Your task to perform on an android device: open chrome privacy settings Image 0: 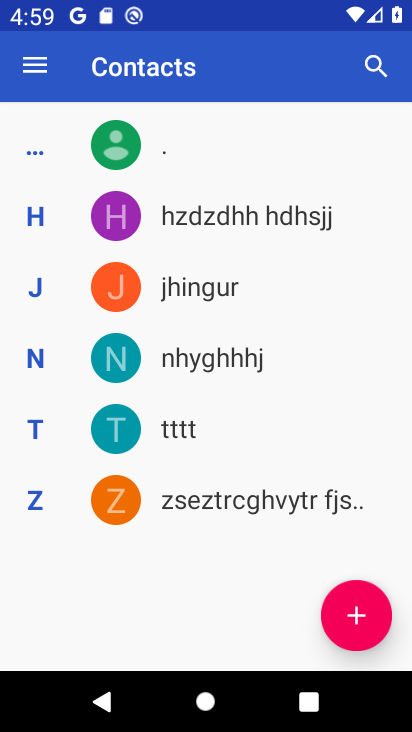
Step 0: press home button
Your task to perform on an android device: open chrome privacy settings Image 1: 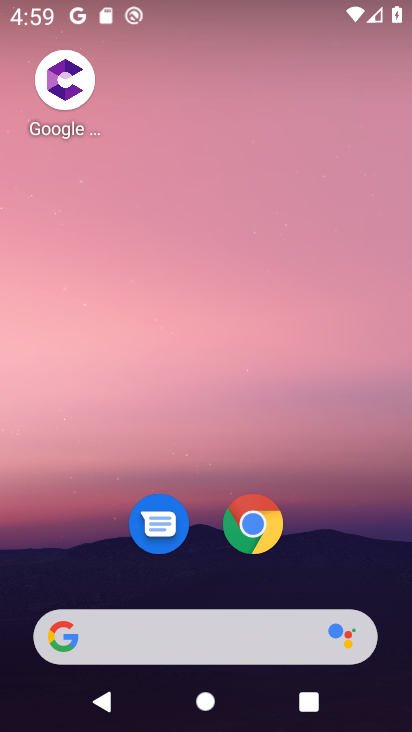
Step 1: click (248, 521)
Your task to perform on an android device: open chrome privacy settings Image 2: 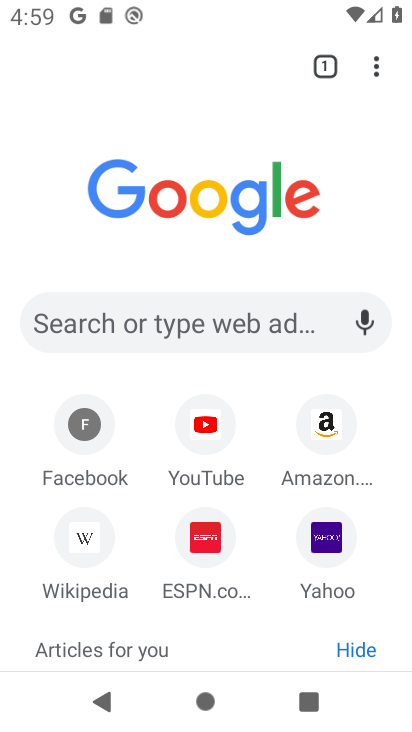
Step 2: drag from (371, 69) to (140, 555)
Your task to perform on an android device: open chrome privacy settings Image 3: 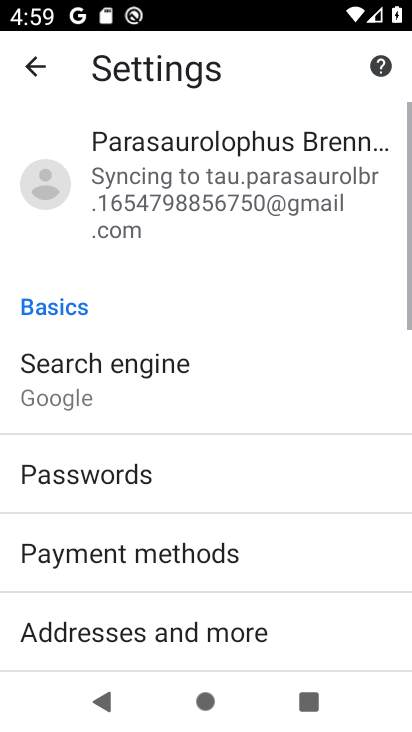
Step 3: drag from (83, 550) to (48, 211)
Your task to perform on an android device: open chrome privacy settings Image 4: 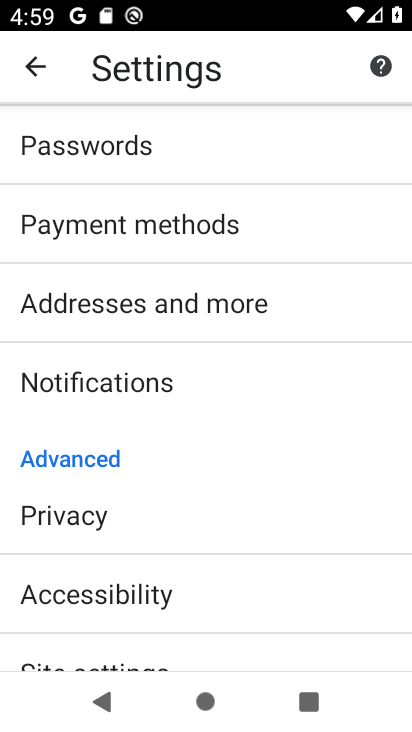
Step 4: click (94, 508)
Your task to perform on an android device: open chrome privacy settings Image 5: 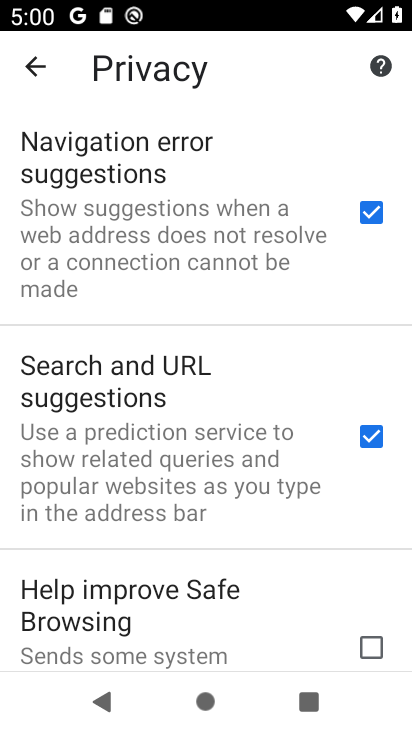
Step 5: task complete